Your task to perform on an android device: turn on location history Image 0: 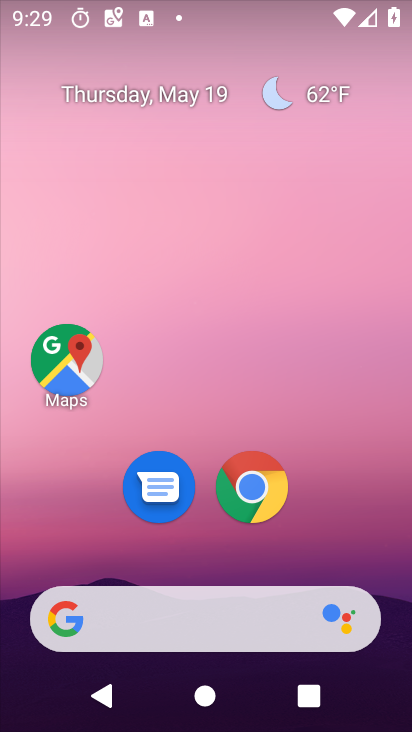
Step 0: drag from (314, 539) to (289, 113)
Your task to perform on an android device: turn on location history Image 1: 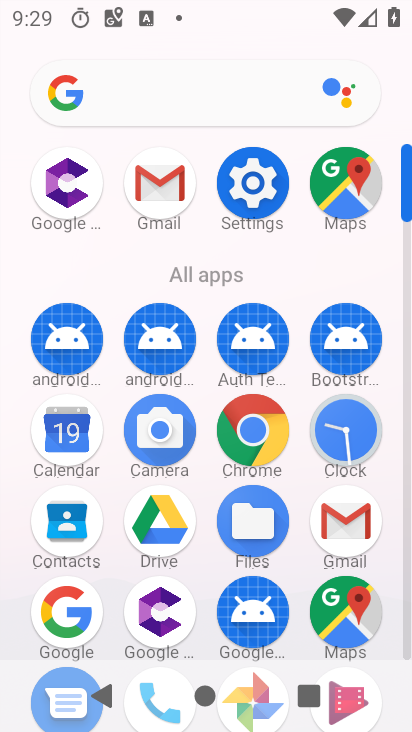
Step 1: click (254, 193)
Your task to perform on an android device: turn on location history Image 2: 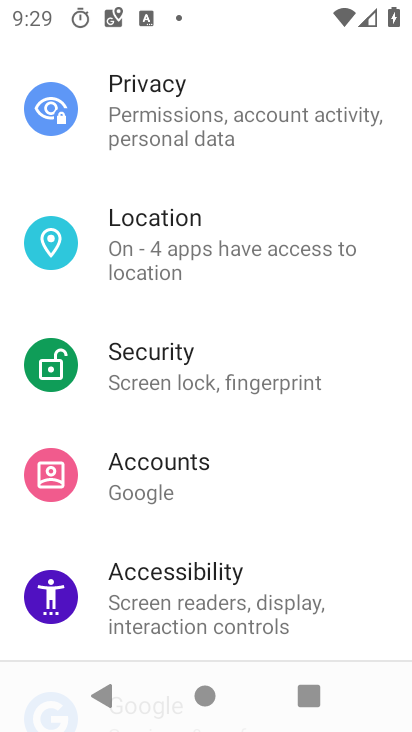
Step 2: click (193, 261)
Your task to perform on an android device: turn on location history Image 3: 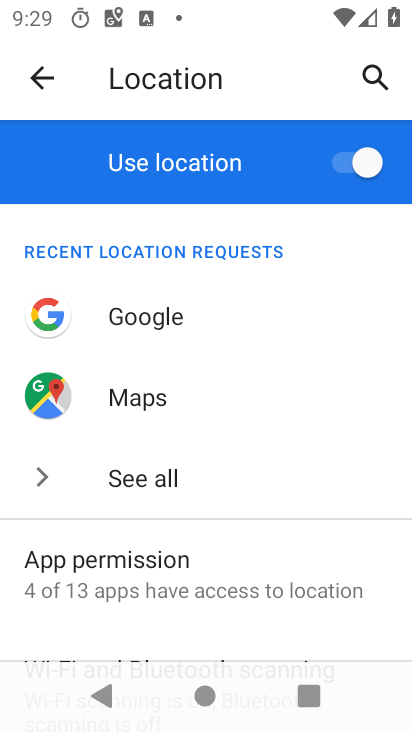
Step 3: drag from (235, 592) to (247, 346)
Your task to perform on an android device: turn on location history Image 4: 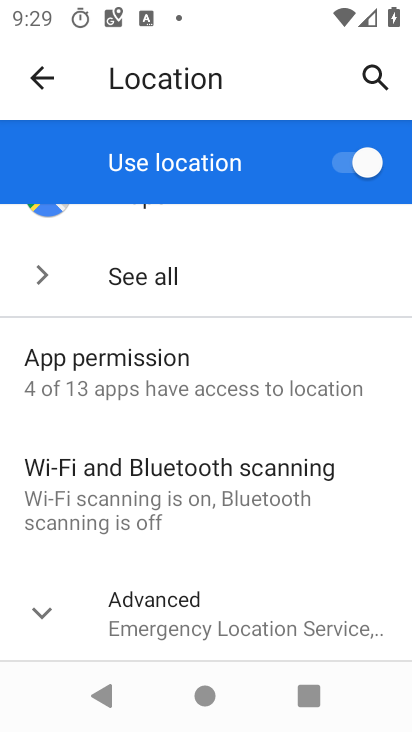
Step 4: click (219, 611)
Your task to perform on an android device: turn on location history Image 5: 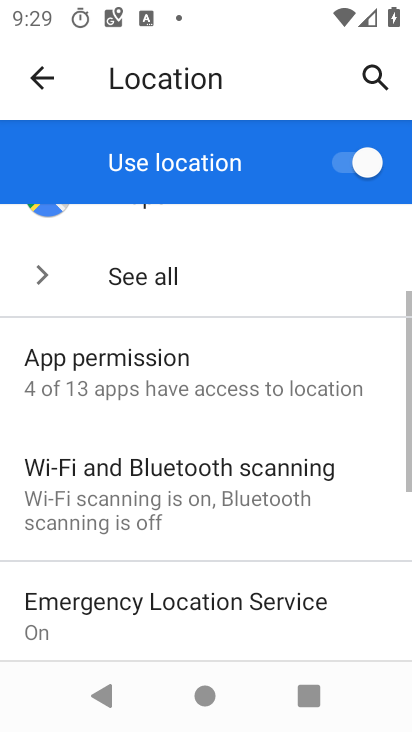
Step 5: drag from (268, 587) to (299, 324)
Your task to perform on an android device: turn on location history Image 6: 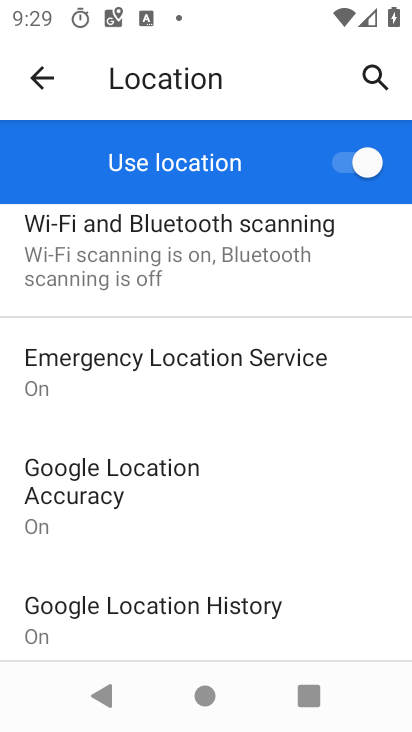
Step 6: click (212, 611)
Your task to perform on an android device: turn on location history Image 7: 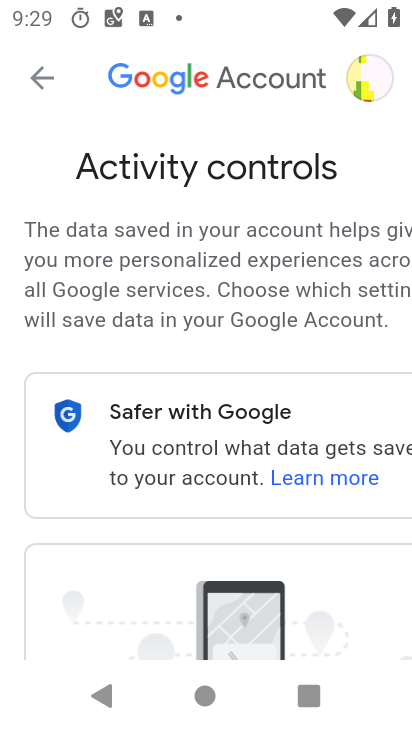
Step 7: drag from (300, 635) to (329, 294)
Your task to perform on an android device: turn on location history Image 8: 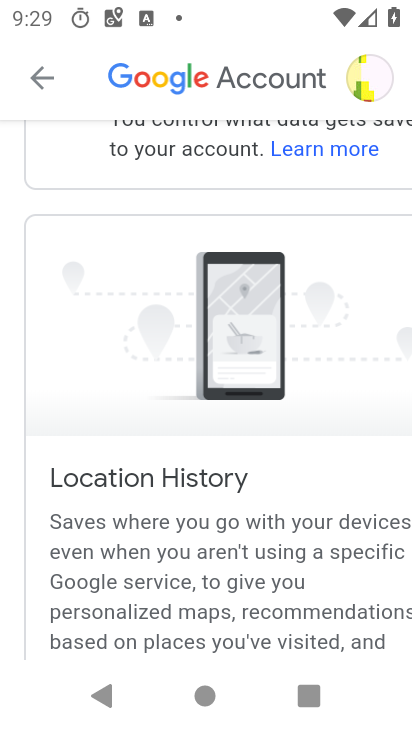
Step 8: drag from (279, 602) to (295, 204)
Your task to perform on an android device: turn on location history Image 9: 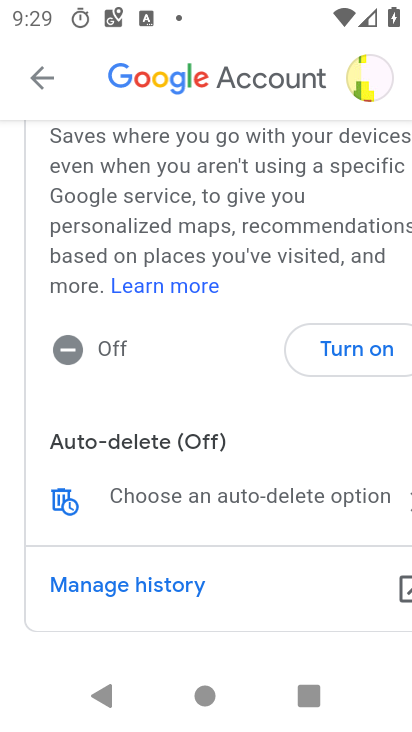
Step 9: click (341, 351)
Your task to perform on an android device: turn on location history Image 10: 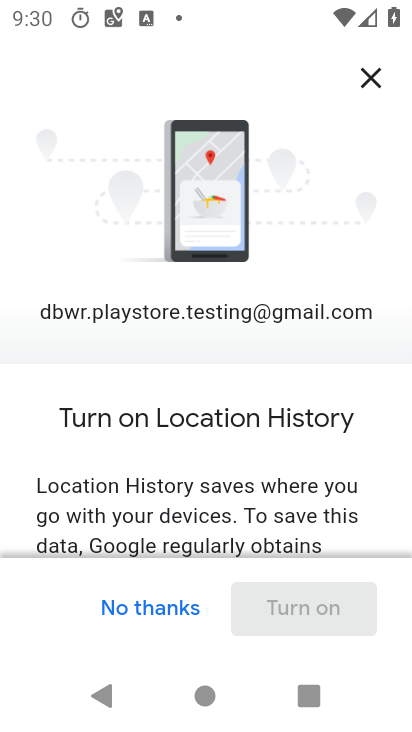
Step 10: drag from (249, 535) to (249, 165)
Your task to perform on an android device: turn on location history Image 11: 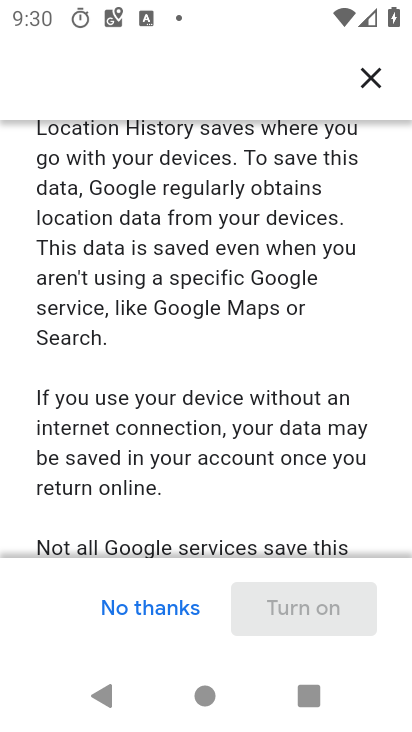
Step 11: drag from (266, 497) to (265, 203)
Your task to perform on an android device: turn on location history Image 12: 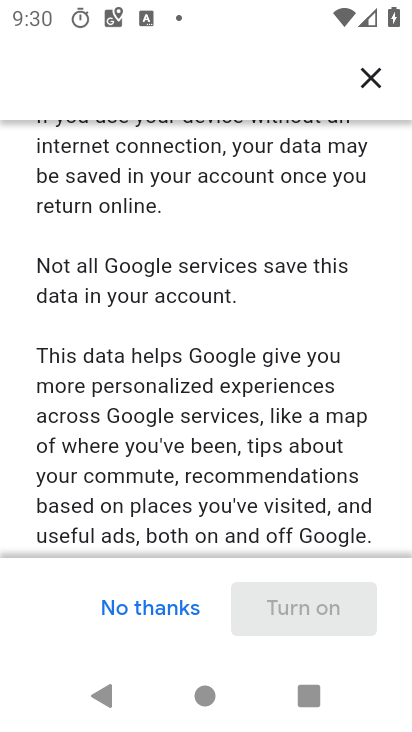
Step 12: drag from (290, 509) to (298, 189)
Your task to perform on an android device: turn on location history Image 13: 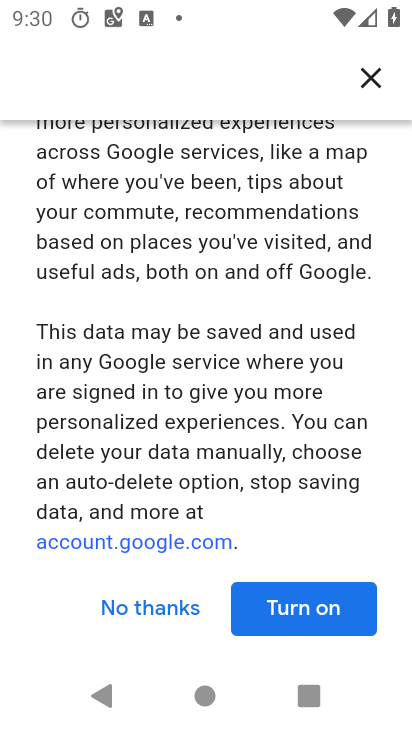
Step 13: click (319, 602)
Your task to perform on an android device: turn on location history Image 14: 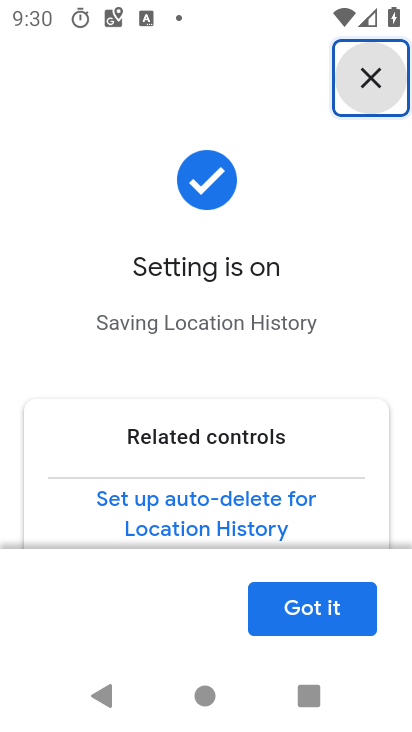
Step 14: click (304, 618)
Your task to perform on an android device: turn on location history Image 15: 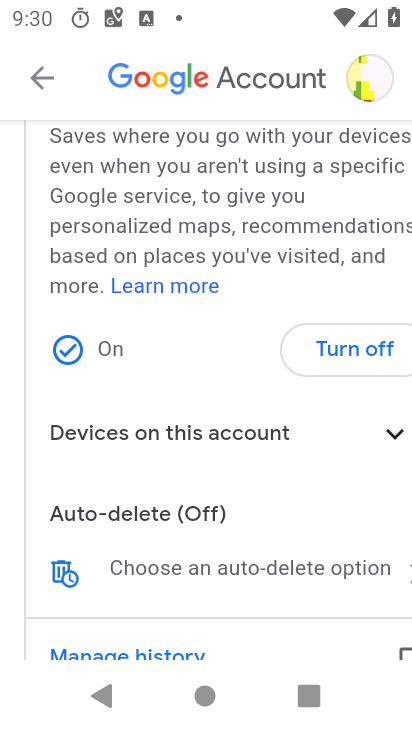
Step 15: task complete